Your task to perform on an android device: turn off sleep mode Image 0: 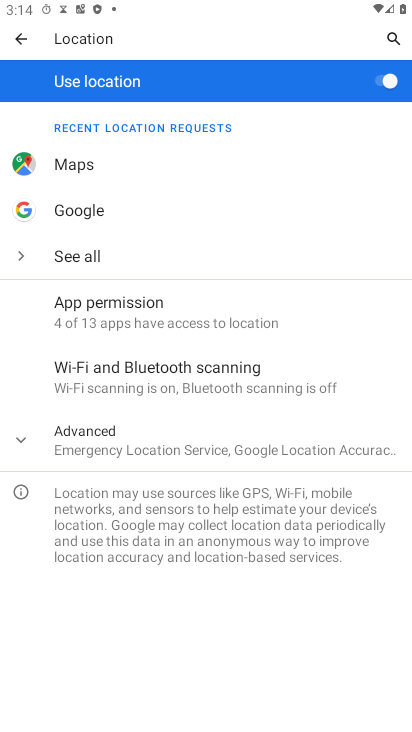
Step 0: press home button
Your task to perform on an android device: turn off sleep mode Image 1: 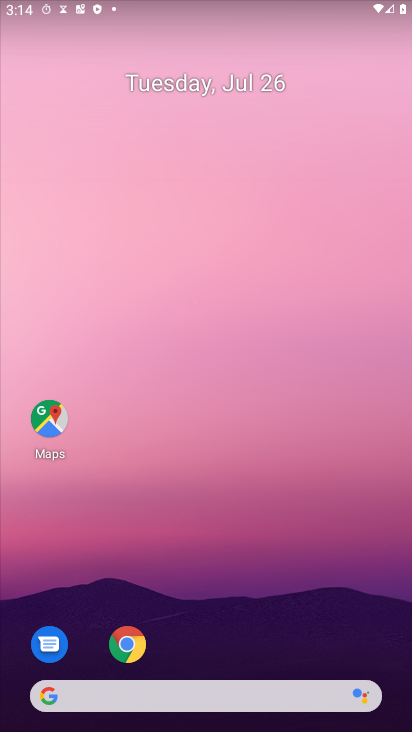
Step 1: press home button
Your task to perform on an android device: turn off sleep mode Image 2: 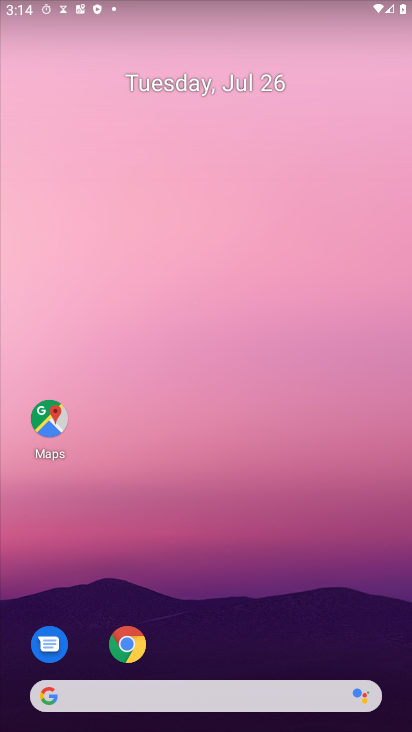
Step 2: drag from (243, 630) to (256, 163)
Your task to perform on an android device: turn off sleep mode Image 3: 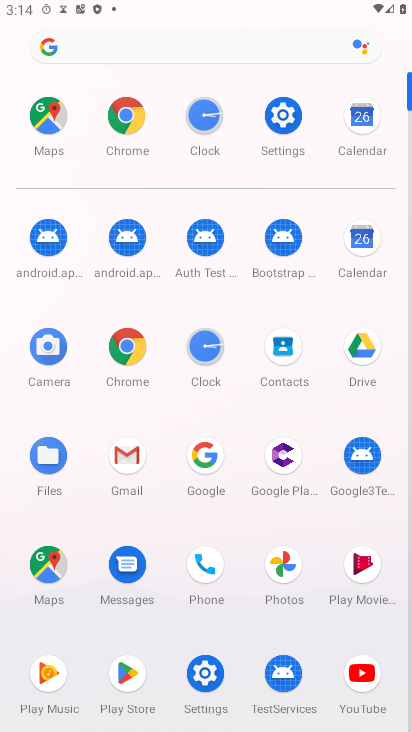
Step 3: click (280, 122)
Your task to perform on an android device: turn off sleep mode Image 4: 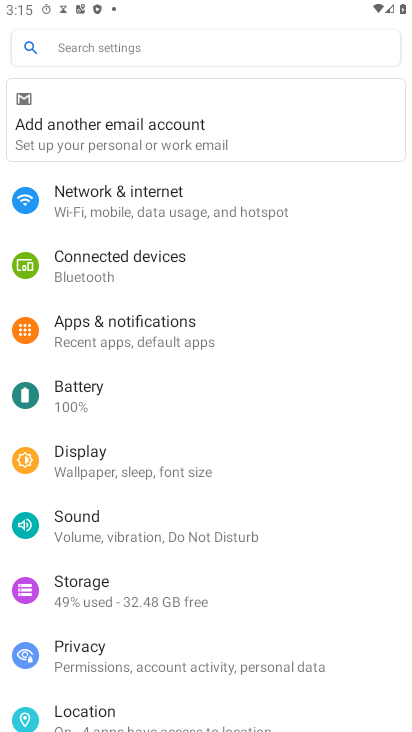
Step 4: click (109, 465)
Your task to perform on an android device: turn off sleep mode Image 5: 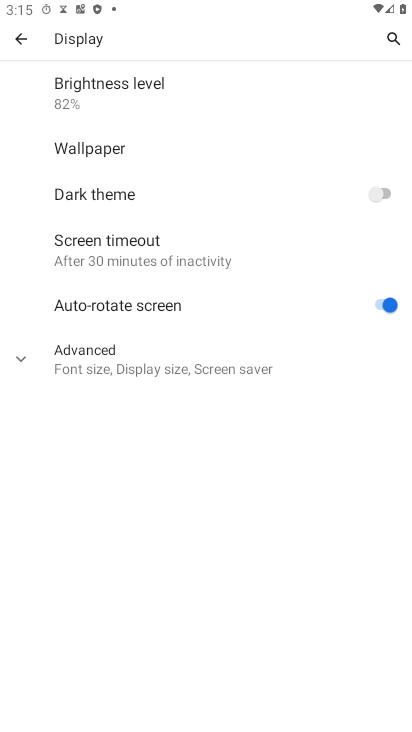
Step 5: task complete